Your task to perform on an android device: Go to ESPN.com Image 0: 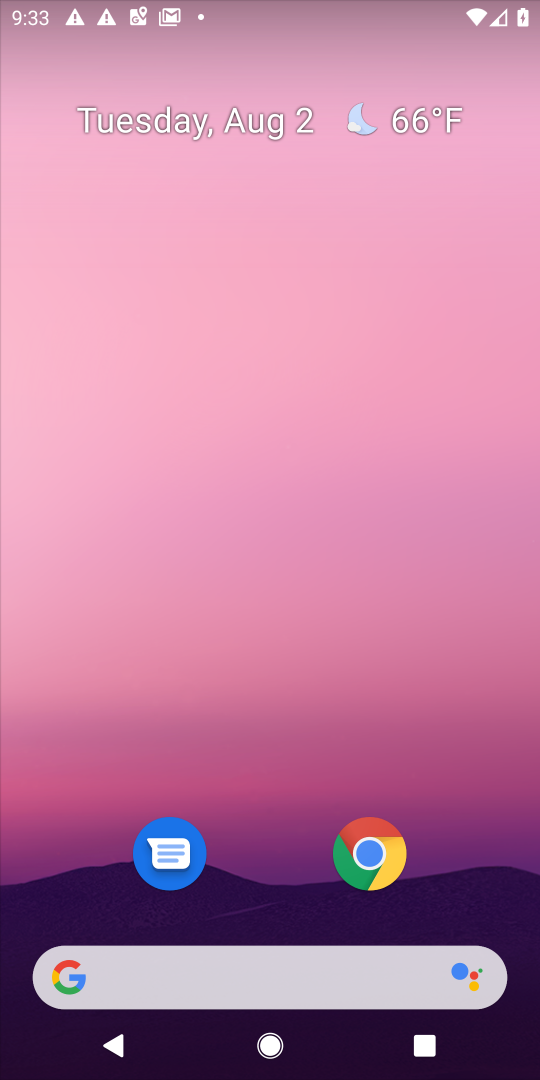
Step 0: drag from (311, 906) to (522, 617)
Your task to perform on an android device: Go to ESPN.com Image 1: 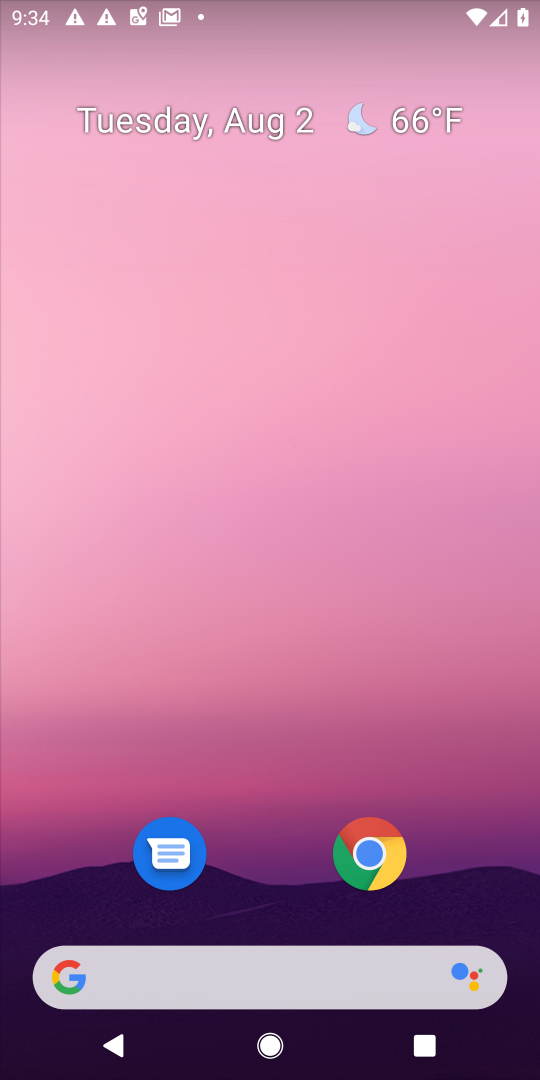
Step 1: drag from (323, 848) to (323, 2)
Your task to perform on an android device: Go to ESPN.com Image 2: 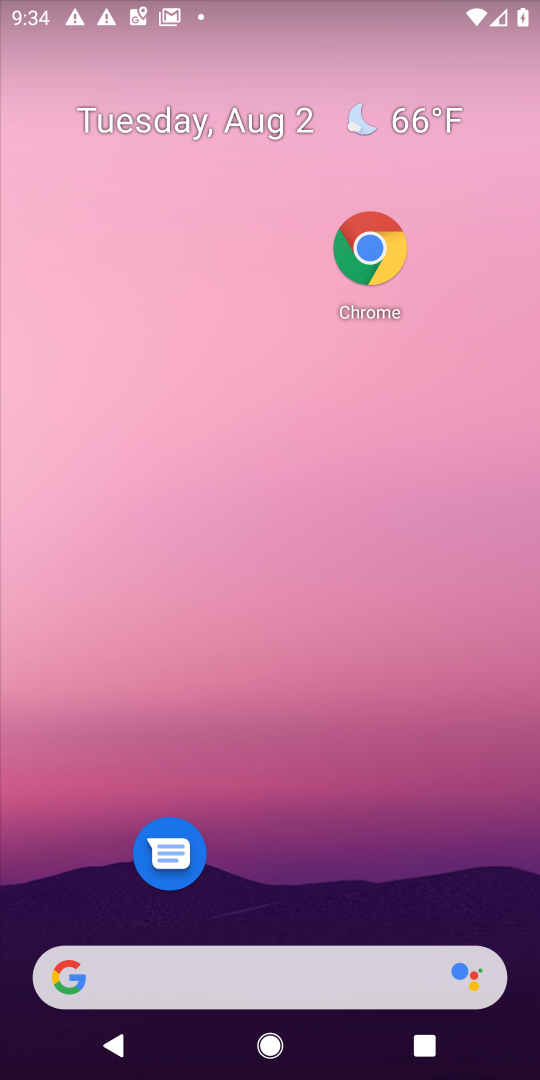
Step 2: click (376, 260)
Your task to perform on an android device: Go to ESPN.com Image 3: 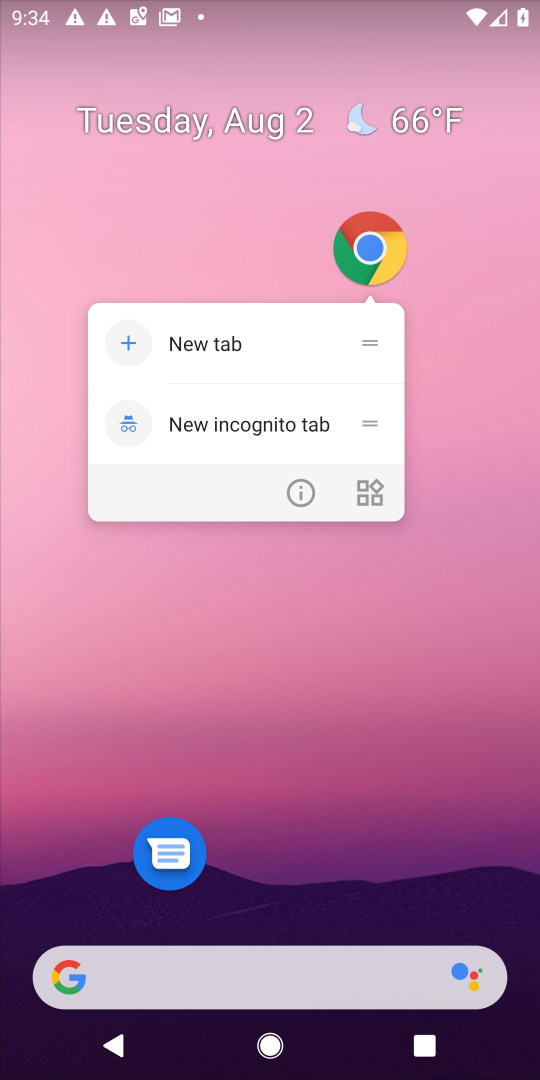
Step 3: click (385, 238)
Your task to perform on an android device: Go to ESPN.com Image 4: 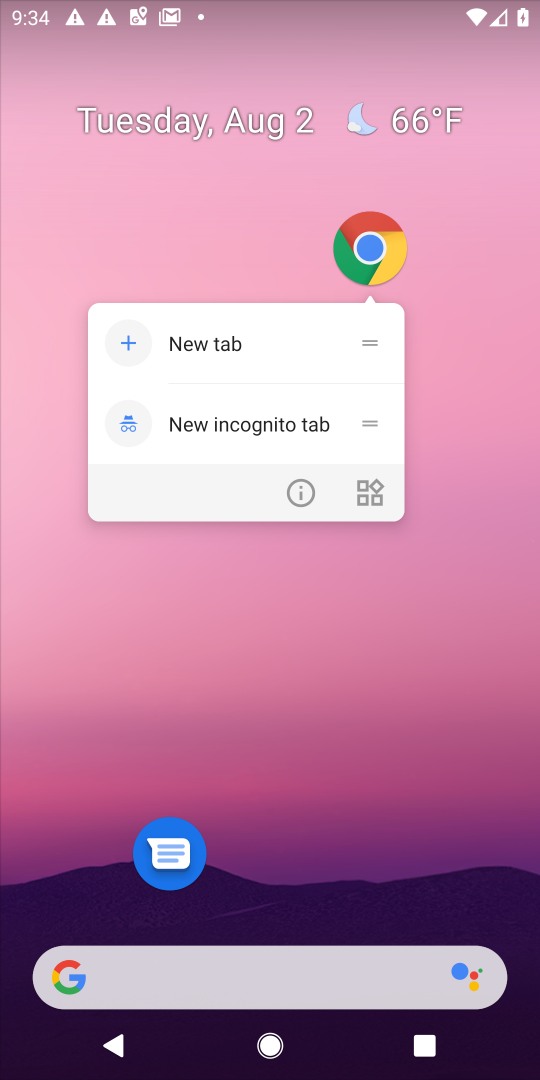
Step 4: click (378, 240)
Your task to perform on an android device: Go to ESPN.com Image 5: 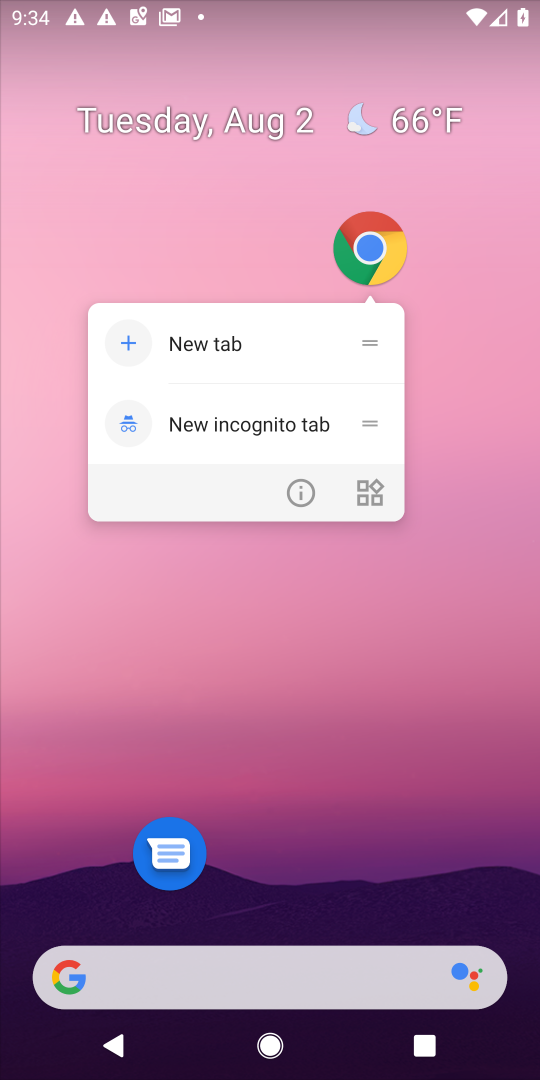
Step 5: click (410, 624)
Your task to perform on an android device: Go to ESPN.com Image 6: 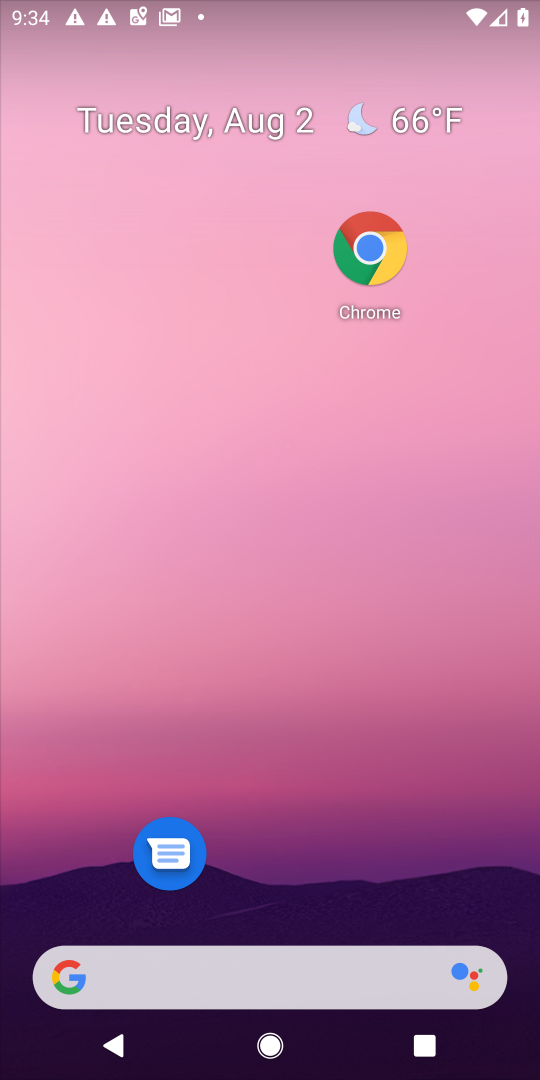
Step 6: click (386, 221)
Your task to perform on an android device: Go to ESPN.com Image 7: 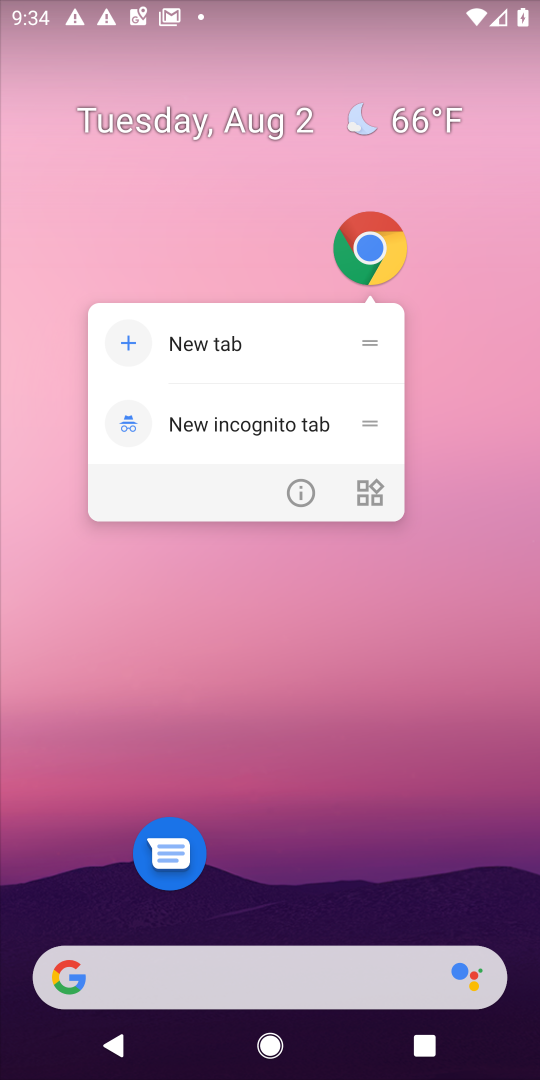
Step 7: click (399, 230)
Your task to perform on an android device: Go to ESPN.com Image 8: 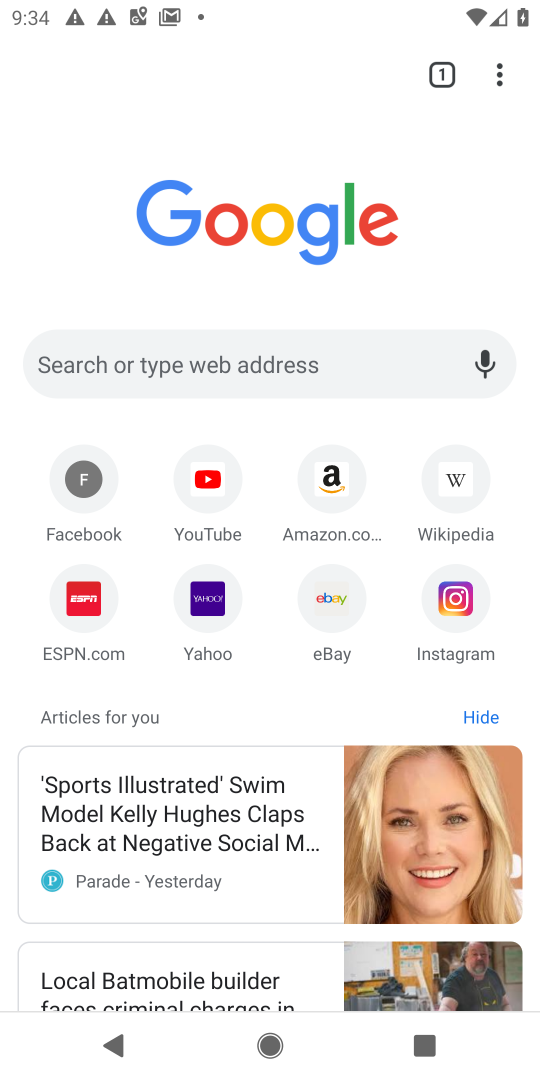
Step 8: click (88, 598)
Your task to perform on an android device: Go to ESPN.com Image 9: 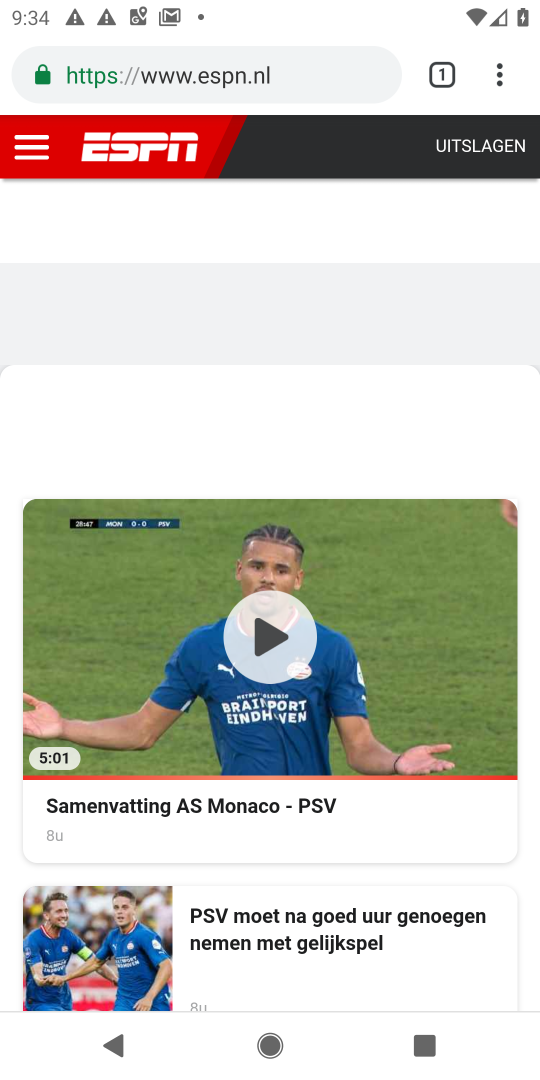
Step 9: task complete